Your task to perform on an android device: turn off sleep mode Image 0: 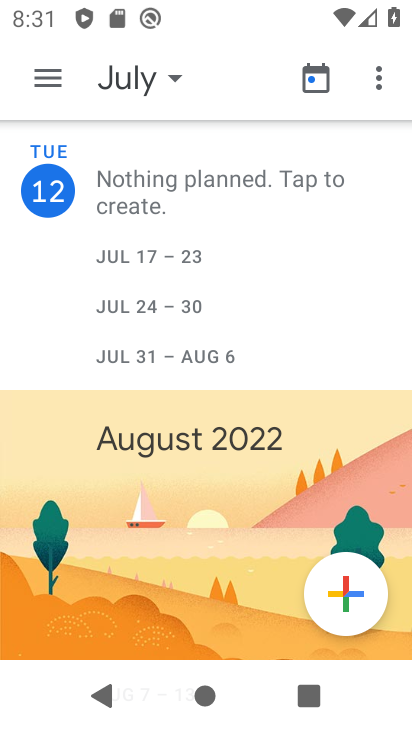
Step 0: press back button
Your task to perform on an android device: turn off sleep mode Image 1: 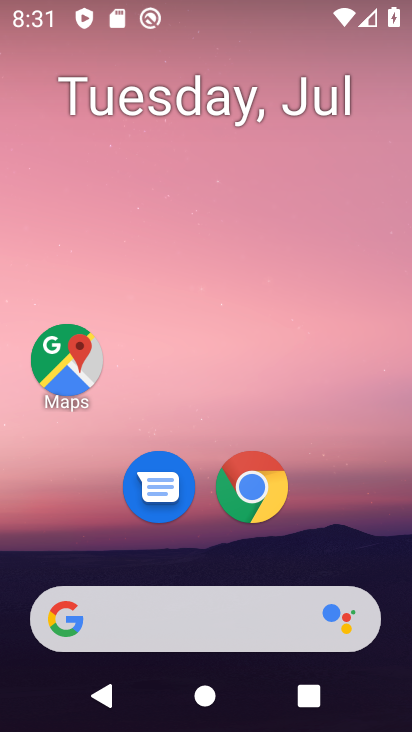
Step 1: drag from (200, 590) to (312, 20)
Your task to perform on an android device: turn off sleep mode Image 2: 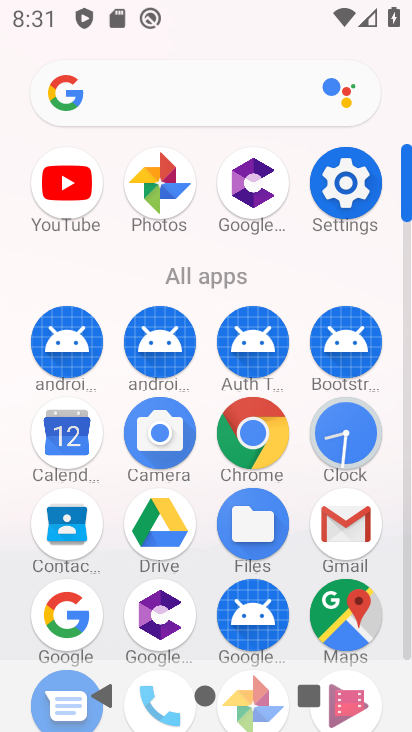
Step 2: click (353, 183)
Your task to perform on an android device: turn off sleep mode Image 3: 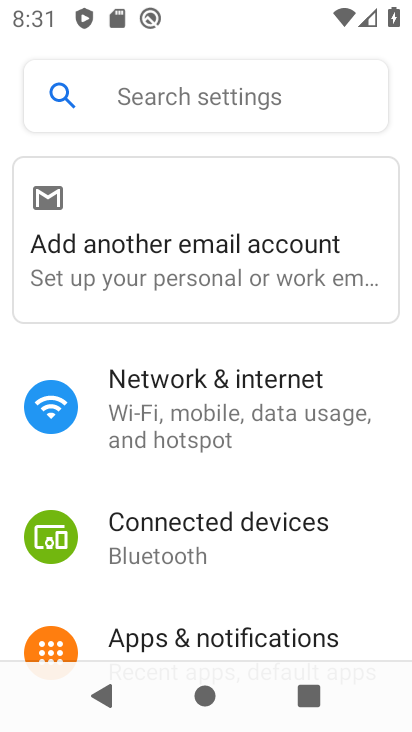
Step 3: click (207, 90)
Your task to perform on an android device: turn off sleep mode Image 4: 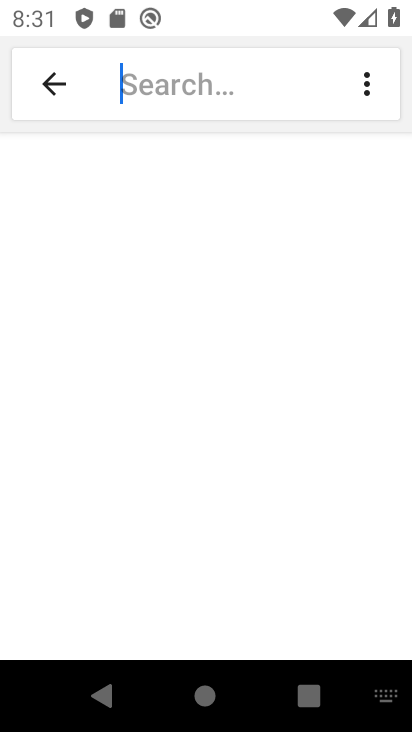
Step 4: type "sleep mode"
Your task to perform on an android device: turn off sleep mode Image 5: 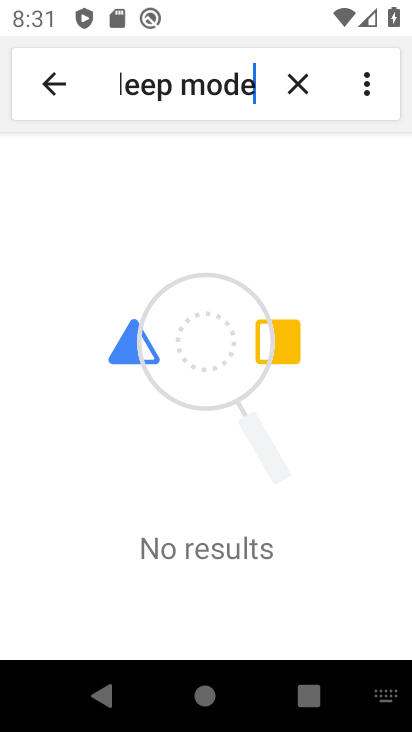
Step 5: task complete